Your task to perform on an android device: Turn off the flashlight Image 0: 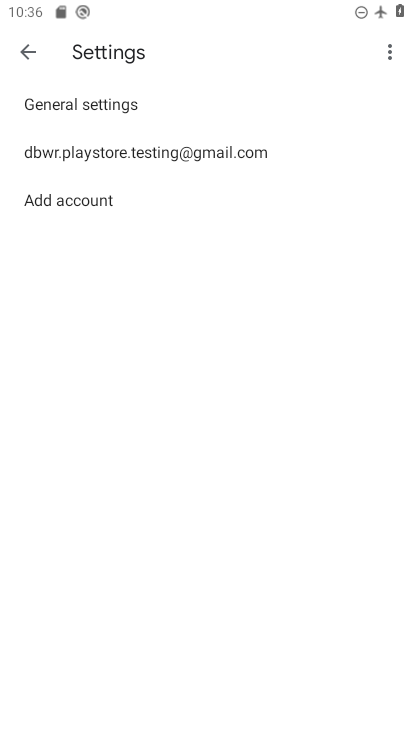
Step 0: click (299, 442)
Your task to perform on an android device: Turn off the flashlight Image 1: 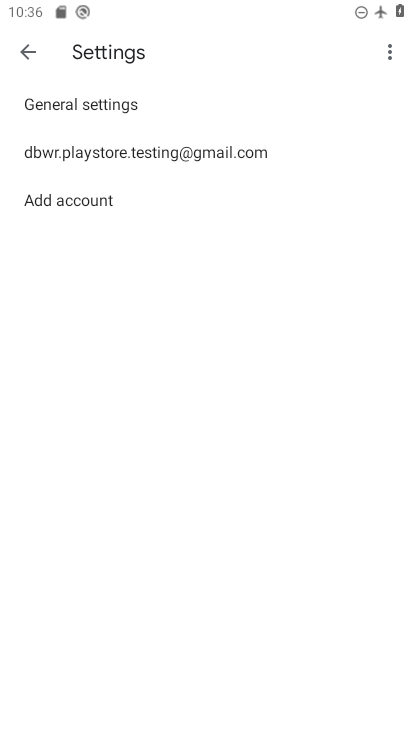
Step 1: press home button
Your task to perform on an android device: Turn off the flashlight Image 2: 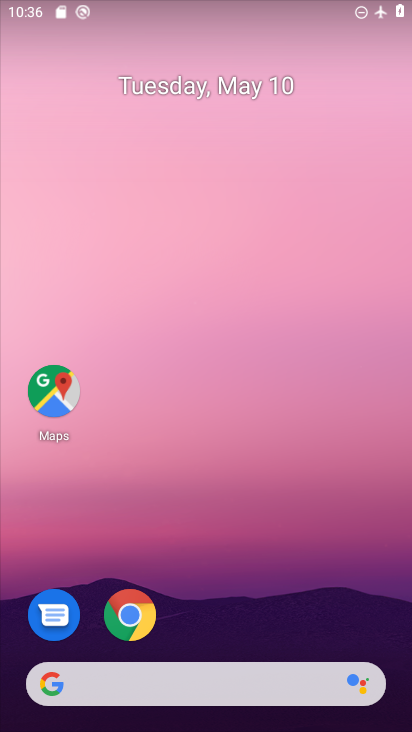
Step 2: drag from (180, 647) to (241, 247)
Your task to perform on an android device: Turn off the flashlight Image 3: 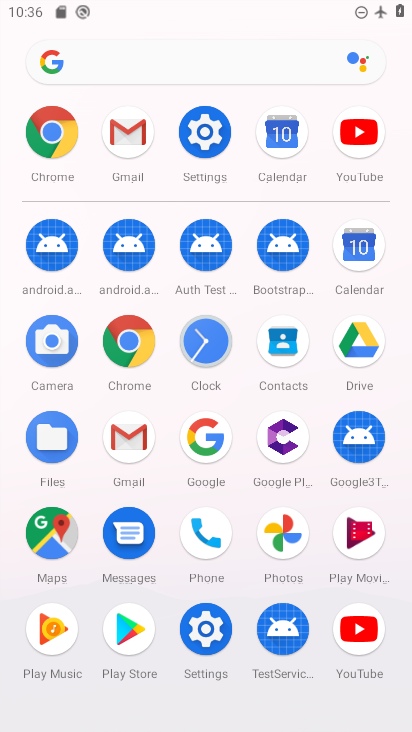
Step 3: click (208, 120)
Your task to perform on an android device: Turn off the flashlight Image 4: 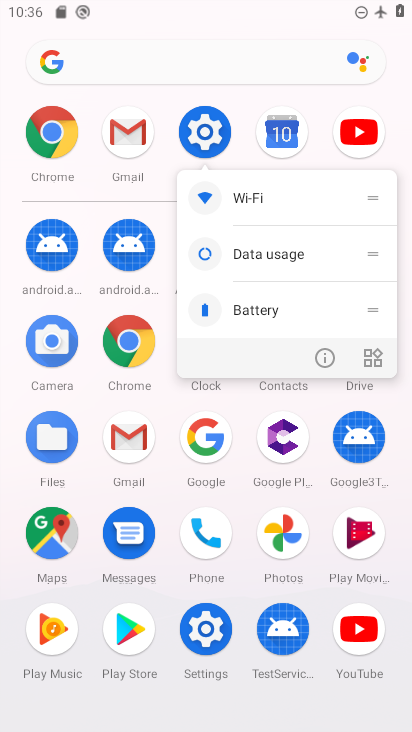
Step 4: click (326, 357)
Your task to perform on an android device: Turn off the flashlight Image 5: 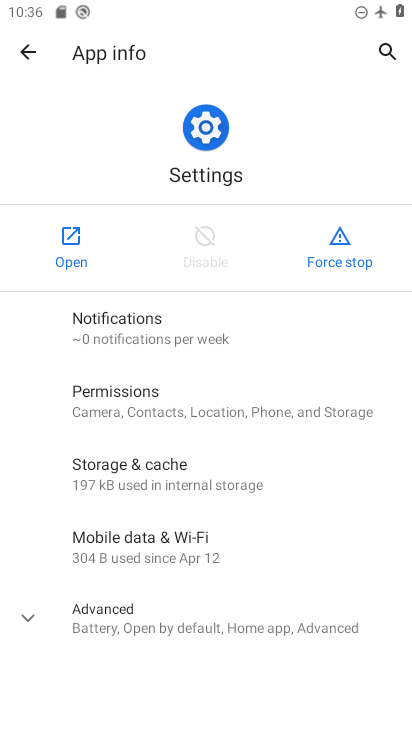
Step 5: click (76, 238)
Your task to perform on an android device: Turn off the flashlight Image 6: 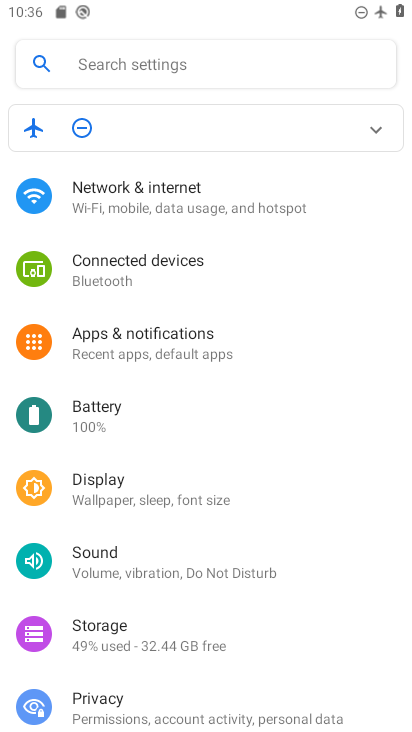
Step 6: click (225, 79)
Your task to perform on an android device: Turn off the flashlight Image 7: 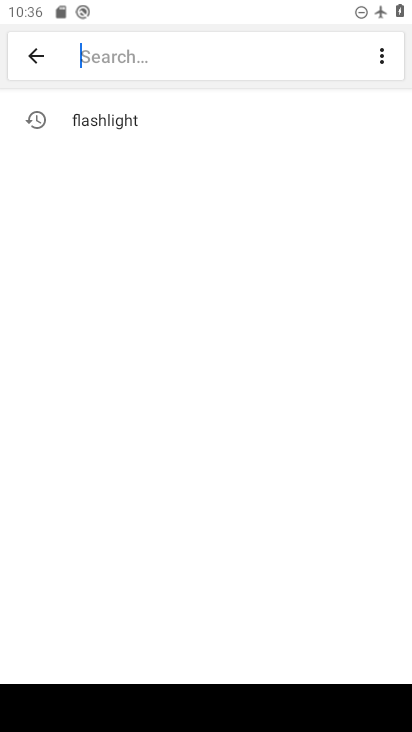
Step 7: click (96, 70)
Your task to perform on an android device: Turn off the flashlight Image 8: 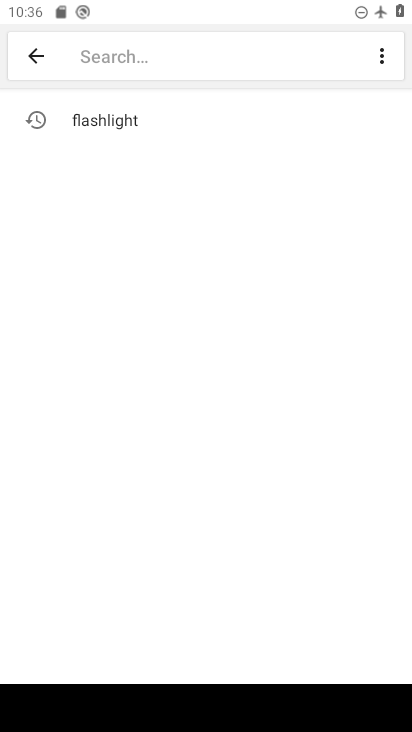
Step 8: click (120, 114)
Your task to perform on an android device: Turn off the flashlight Image 9: 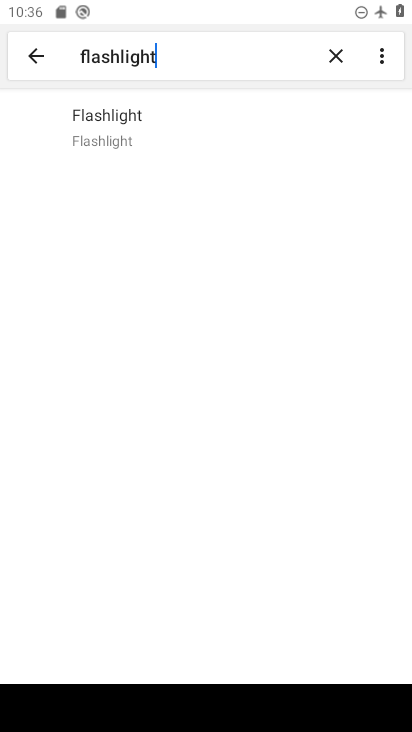
Step 9: click (65, 143)
Your task to perform on an android device: Turn off the flashlight Image 10: 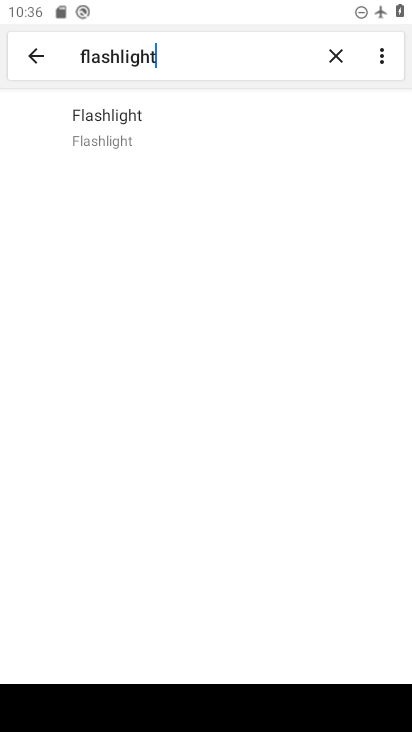
Step 10: click (146, 137)
Your task to perform on an android device: Turn off the flashlight Image 11: 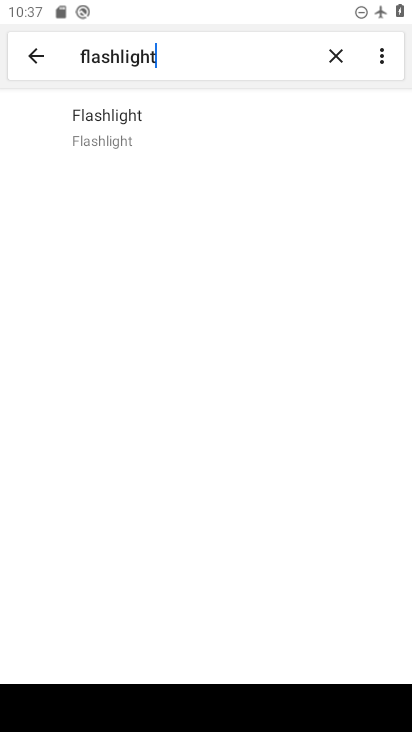
Step 11: click (164, 138)
Your task to perform on an android device: Turn off the flashlight Image 12: 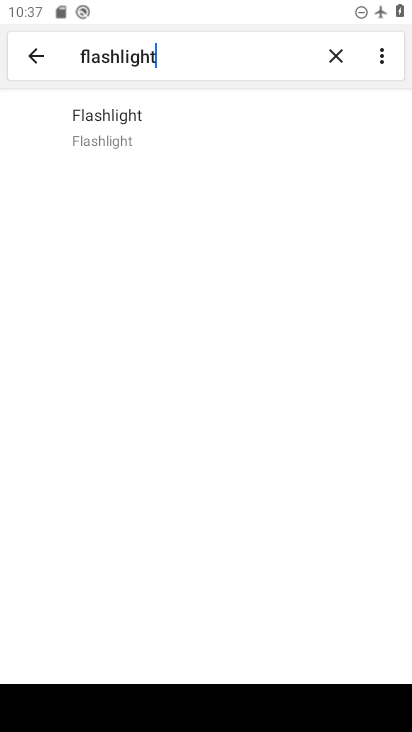
Step 12: click (149, 131)
Your task to perform on an android device: Turn off the flashlight Image 13: 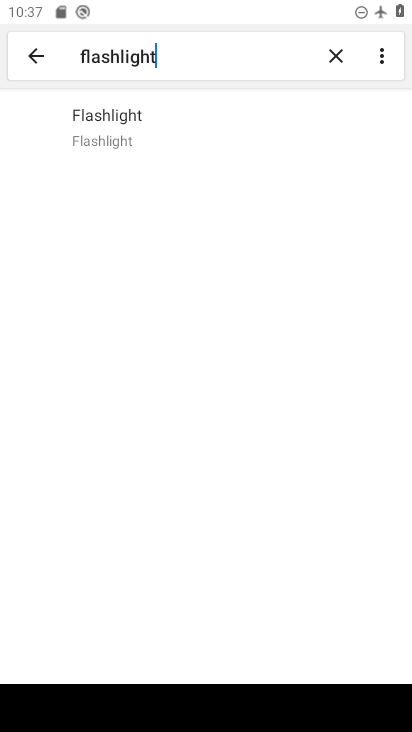
Step 13: click (149, 131)
Your task to perform on an android device: Turn off the flashlight Image 14: 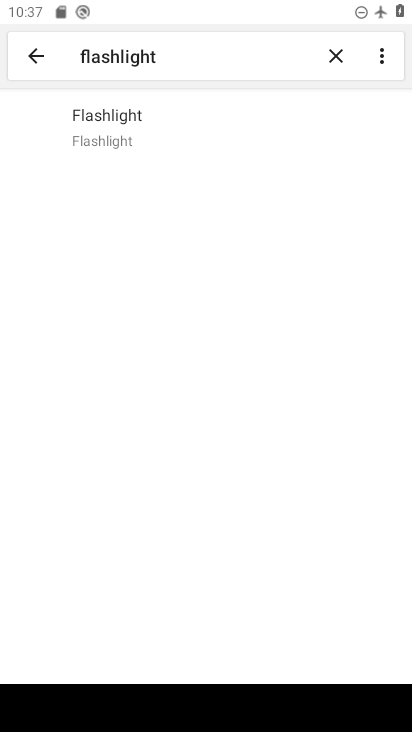
Step 14: task complete